Your task to perform on an android device: Search for flights from Sydney to Zurich Image 0: 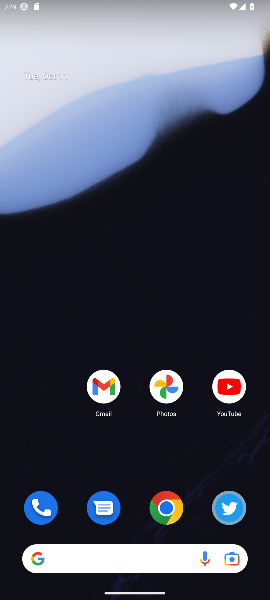
Step 0: click (164, 506)
Your task to perform on an android device: Search for flights from Sydney to Zurich Image 1: 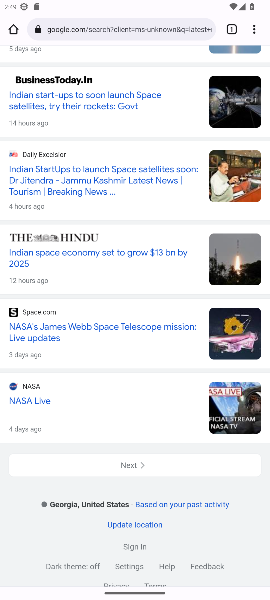
Step 1: click (106, 30)
Your task to perform on an android device: Search for flights from Sydney to Zurich Image 2: 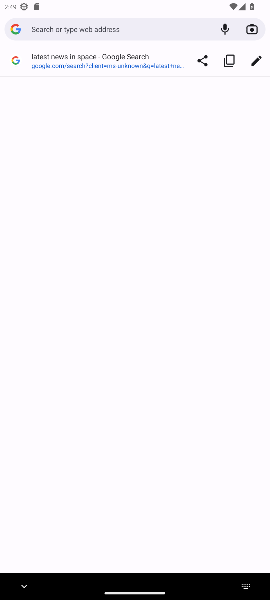
Step 2: type "flights from Sydney to Zurich"
Your task to perform on an android device: Search for flights from Sydney to Zurich Image 3: 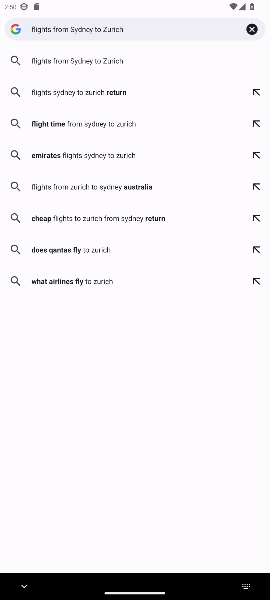
Step 3: click (120, 60)
Your task to perform on an android device: Search for flights from Sydney to Zurich Image 4: 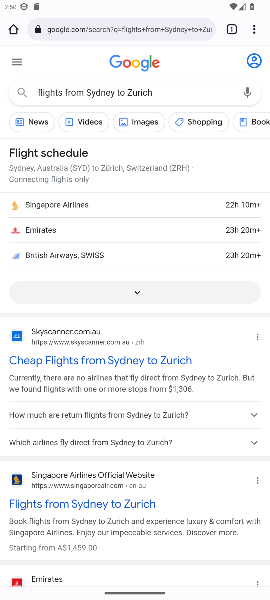
Step 4: drag from (190, 315) to (207, 413)
Your task to perform on an android device: Search for flights from Sydney to Zurich Image 5: 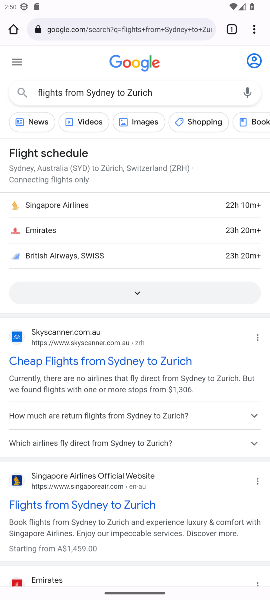
Step 5: drag from (246, 125) to (34, 128)
Your task to perform on an android device: Search for flights from Sydney to Zurich Image 6: 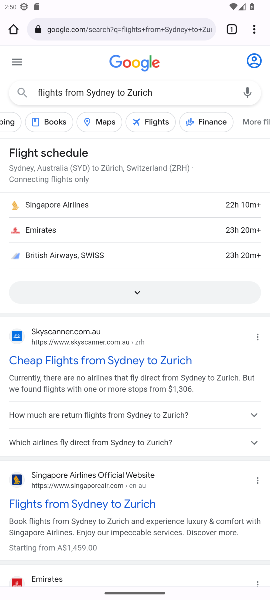
Step 6: click (147, 124)
Your task to perform on an android device: Search for flights from Sydney to Zurich Image 7: 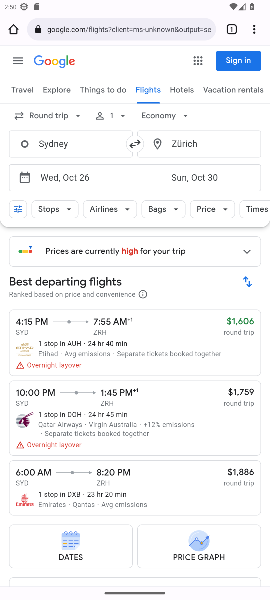
Step 7: task complete